Your task to perform on an android device: allow cookies in the chrome app Image 0: 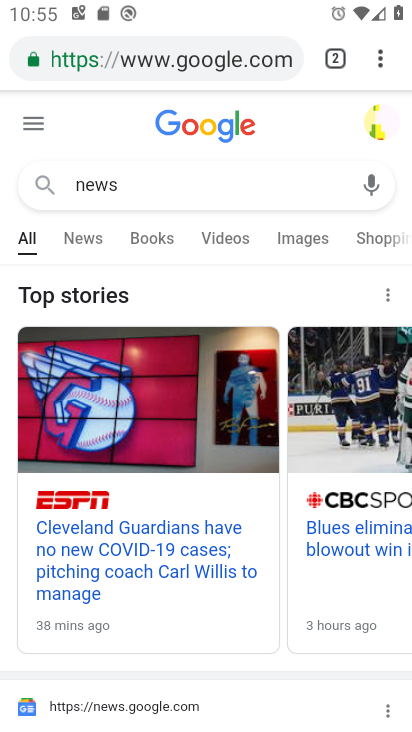
Step 0: press home button
Your task to perform on an android device: allow cookies in the chrome app Image 1: 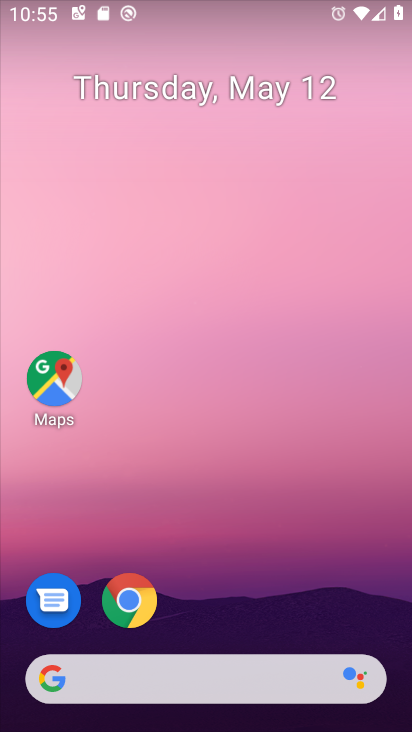
Step 1: click (135, 583)
Your task to perform on an android device: allow cookies in the chrome app Image 2: 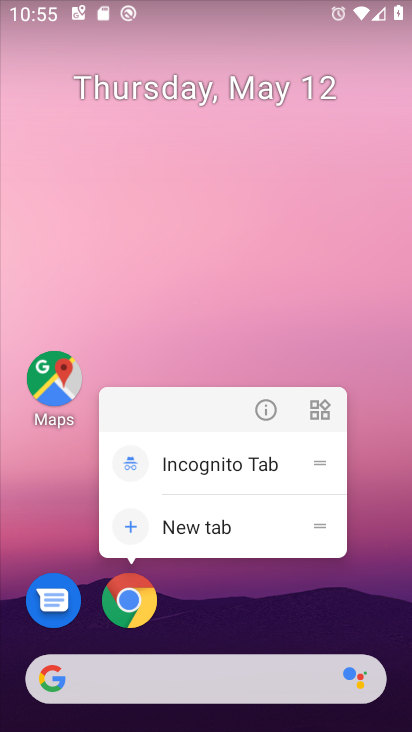
Step 2: click (133, 612)
Your task to perform on an android device: allow cookies in the chrome app Image 3: 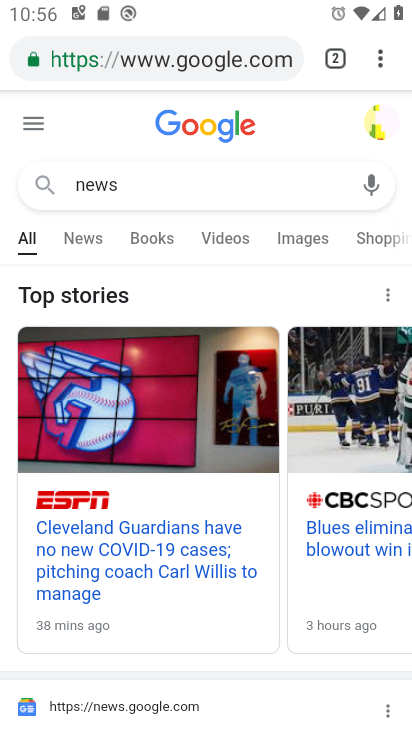
Step 3: click (381, 66)
Your task to perform on an android device: allow cookies in the chrome app Image 4: 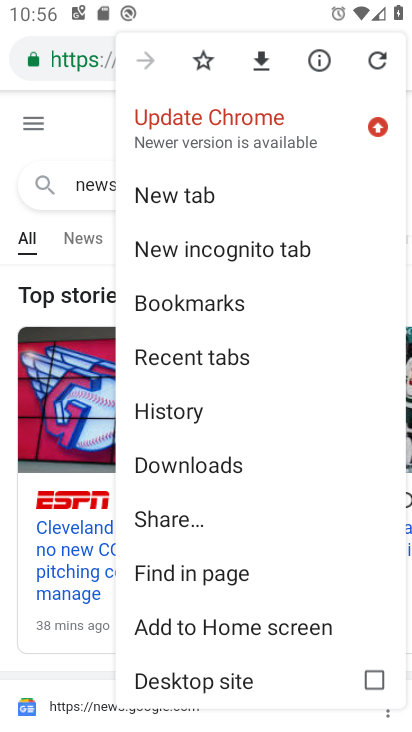
Step 4: drag from (196, 634) to (213, 280)
Your task to perform on an android device: allow cookies in the chrome app Image 5: 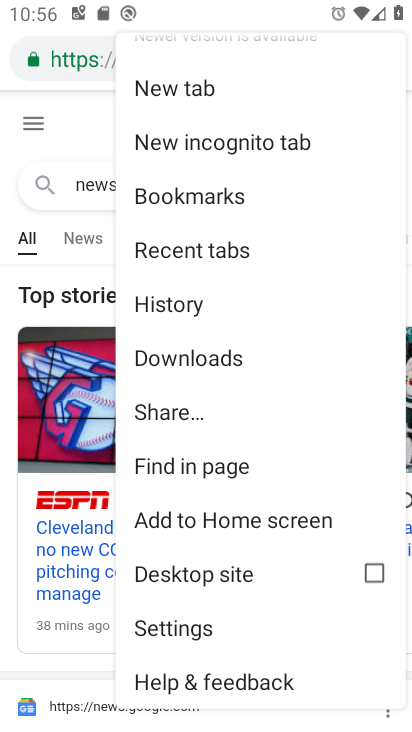
Step 5: click (154, 625)
Your task to perform on an android device: allow cookies in the chrome app Image 6: 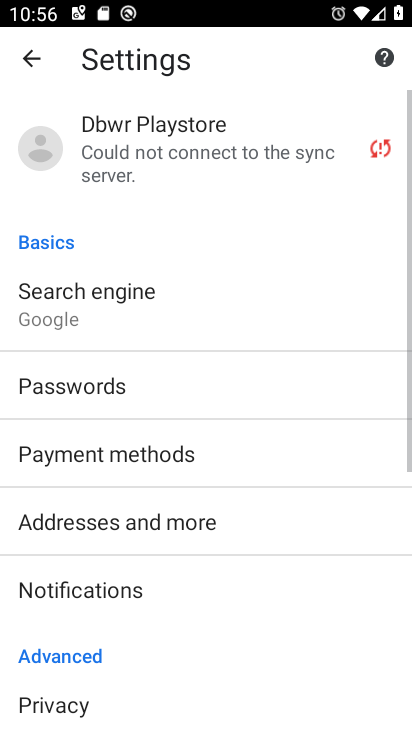
Step 6: drag from (153, 688) to (152, 335)
Your task to perform on an android device: allow cookies in the chrome app Image 7: 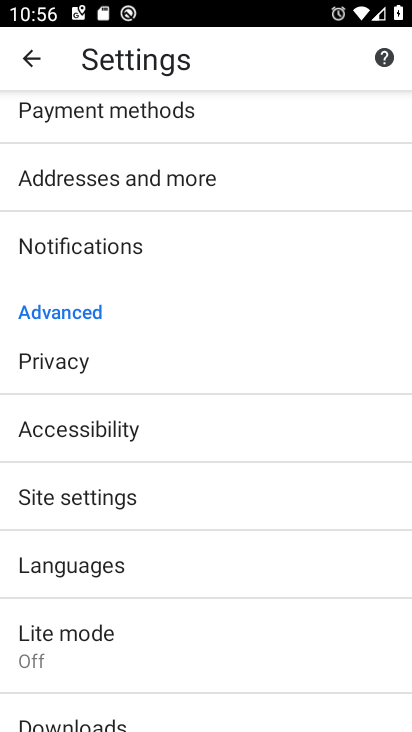
Step 7: click (67, 499)
Your task to perform on an android device: allow cookies in the chrome app Image 8: 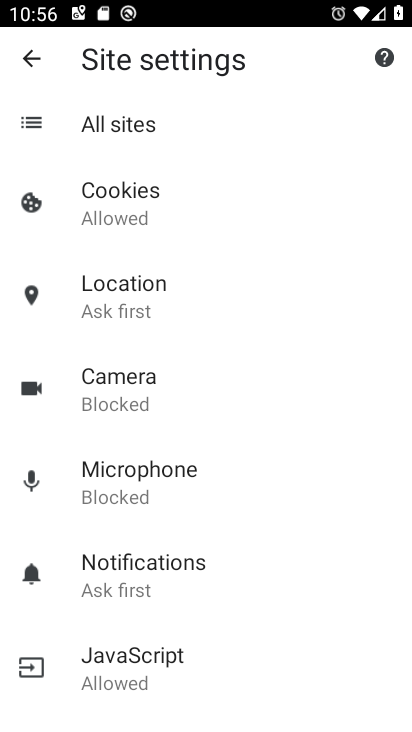
Step 8: click (127, 215)
Your task to perform on an android device: allow cookies in the chrome app Image 9: 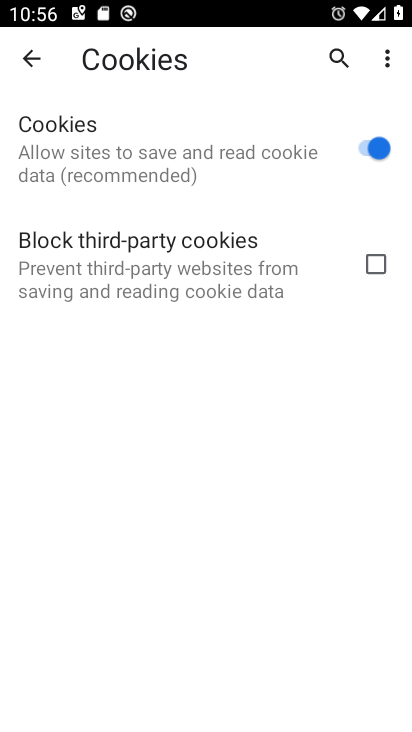
Step 9: task complete